Your task to perform on an android device: Go to Reddit.com Image 0: 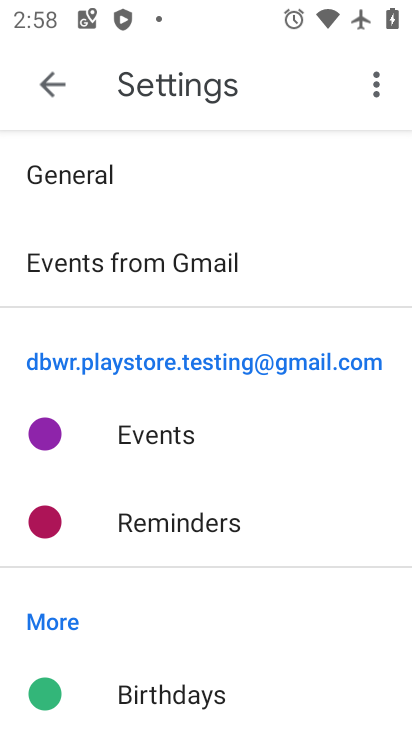
Step 0: press home button
Your task to perform on an android device: Go to Reddit.com Image 1: 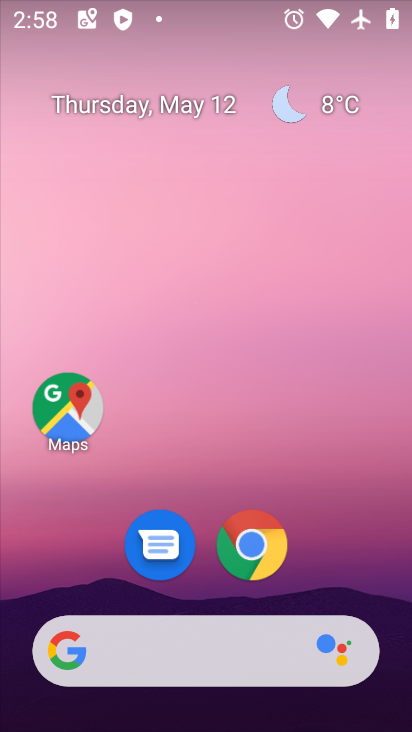
Step 1: click (255, 548)
Your task to perform on an android device: Go to Reddit.com Image 2: 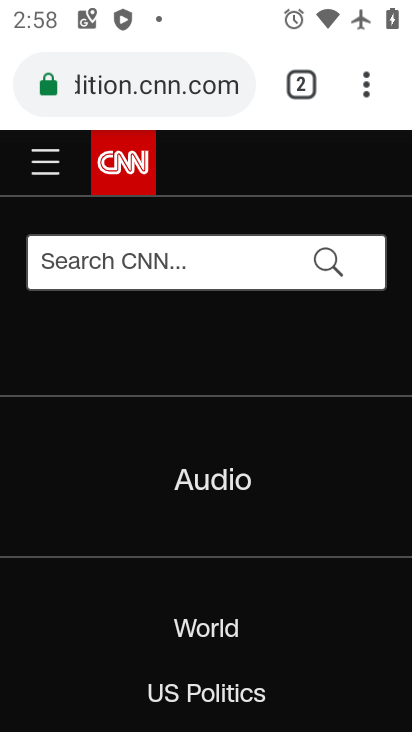
Step 2: click (167, 79)
Your task to perform on an android device: Go to Reddit.com Image 3: 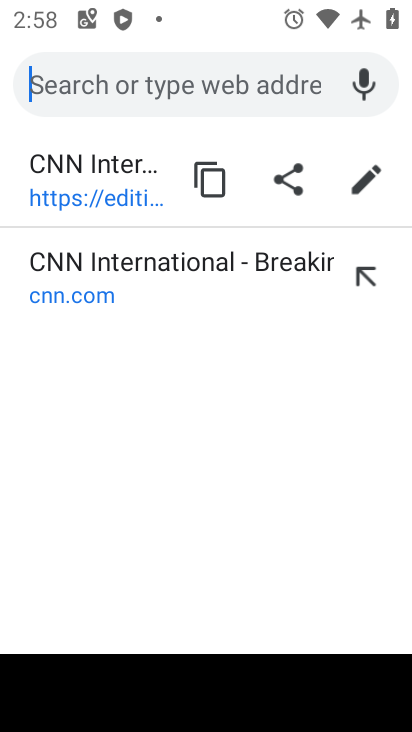
Step 3: type "reddit.com"
Your task to perform on an android device: Go to Reddit.com Image 4: 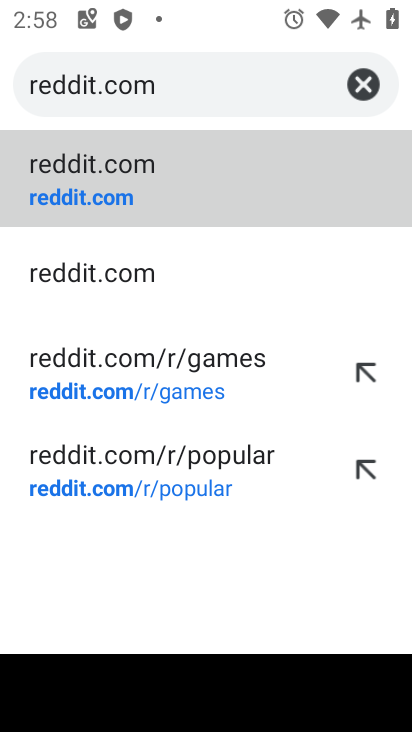
Step 4: click (94, 174)
Your task to perform on an android device: Go to Reddit.com Image 5: 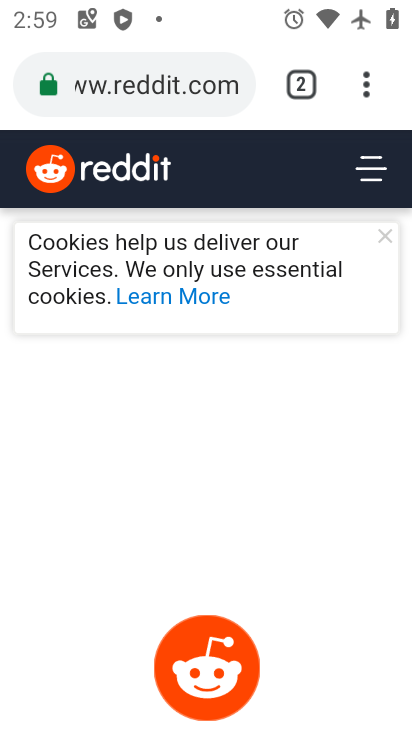
Step 5: task complete